Your task to perform on an android device: What's on my calendar tomorrow? Image 0: 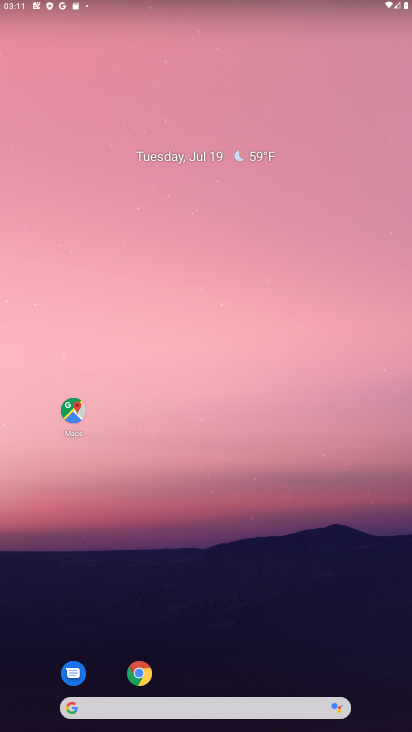
Step 0: drag from (203, 678) to (239, 4)
Your task to perform on an android device: What's on my calendar tomorrow? Image 1: 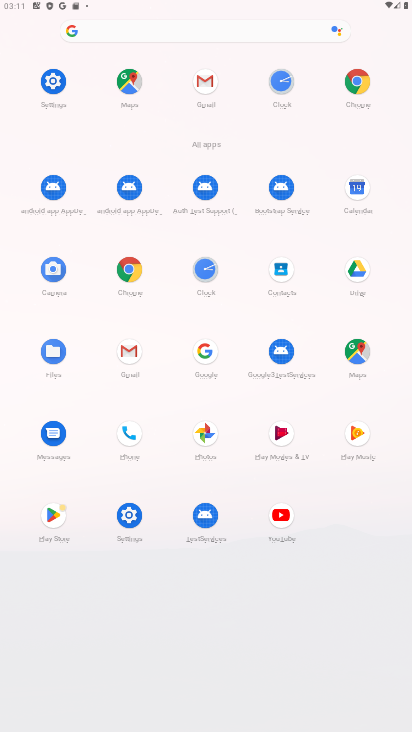
Step 1: click (352, 189)
Your task to perform on an android device: What's on my calendar tomorrow? Image 2: 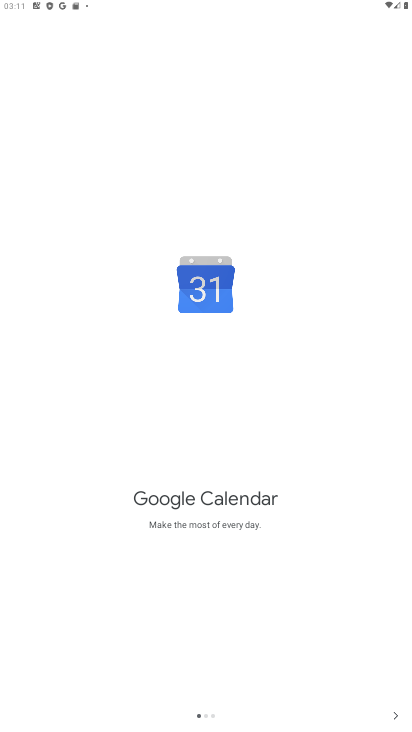
Step 2: click (398, 715)
Your task to perform on an android device: What's on my calendar tomorrow? Image 3: 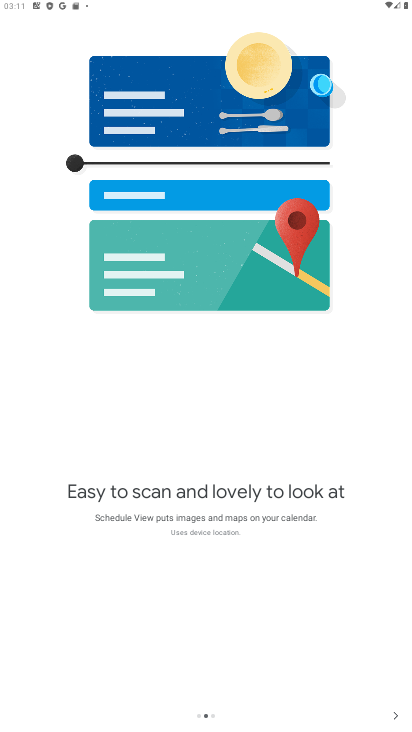
Step 3: click (393, 716)
Your task to perform on an android device: What's on my calendar tomorrow? Image 4: 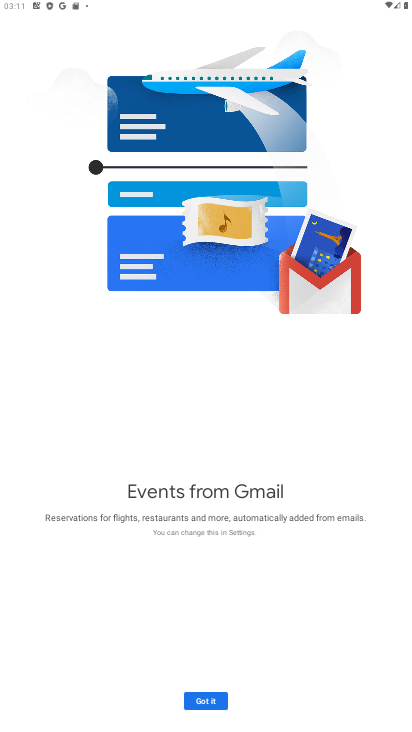
Step 4: click (214, 699)
Your task to perform on an android device: What's on my calendar tomorrow? Image 5: 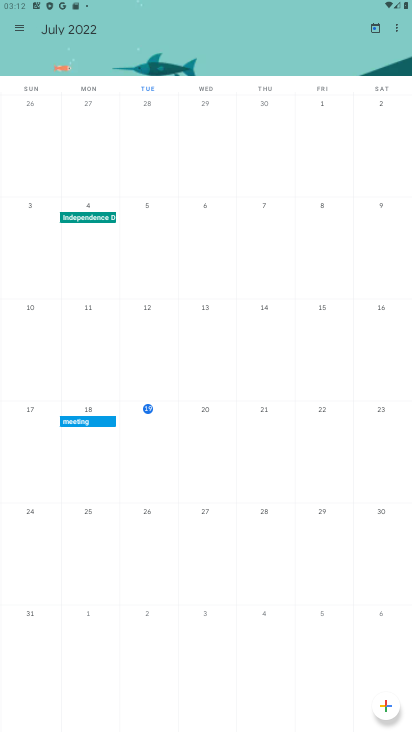
Step 5: click (20, 28)
Your task to perform on an android device: What's on my calendar tomorrow? Image 6: 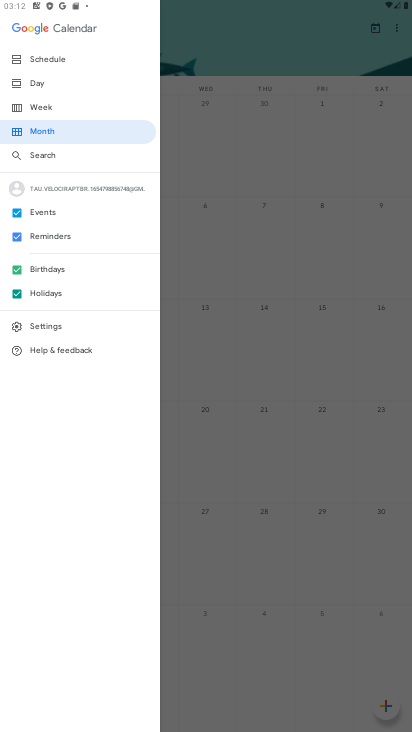
Step 6: click (37, 78)
Your task to perform on an android device: What's on my calendar tomorrow? Image 7: 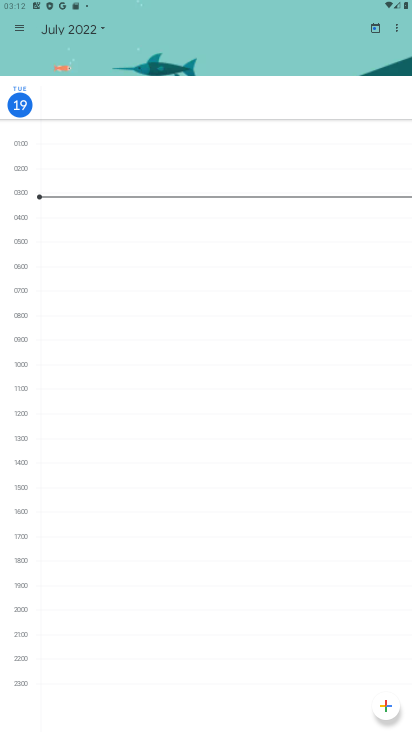
Step 7: click (31, 100)
Your task to perform on an android device: What's on my calendar tomorrow? Image 8: 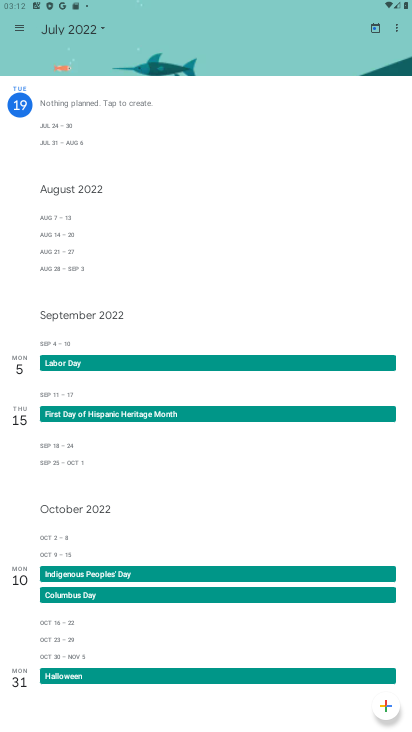
Step 8: click (94, 25)
Your task to perform on an android device: What's on my calendar tomorrow? Image 9: 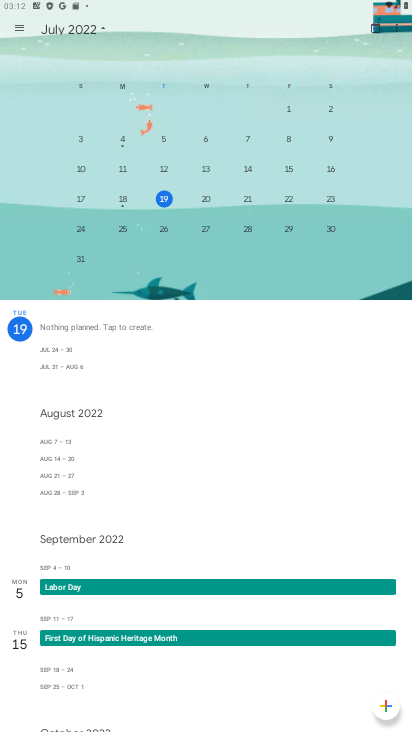
Step 9: click (208, 196)
Your task to perform on an android device: What's on my calendar tomorrow? Image 10: 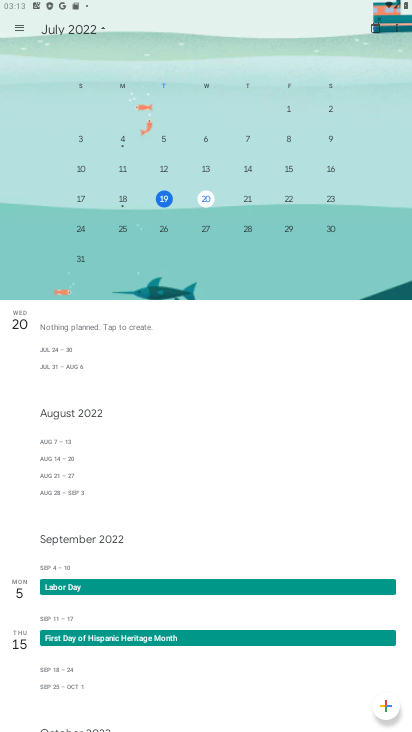
Step 10: click (31, 313)
Your task to perform on an android device: What's on my calendar tomorrow? Image 11: 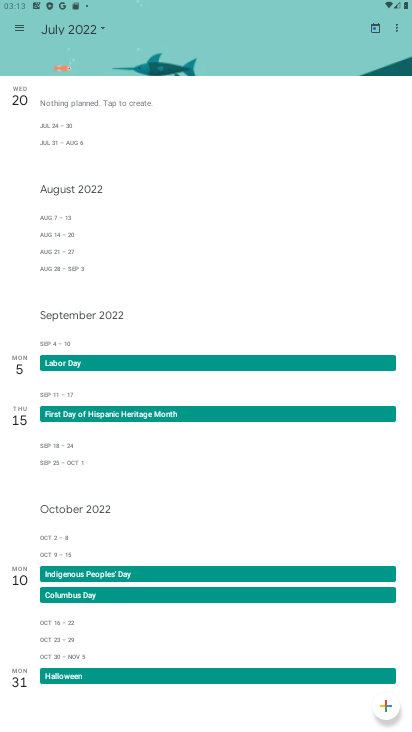
Step 11: task complete